Your task to perform on an android device: Go to Amazon Image 0: 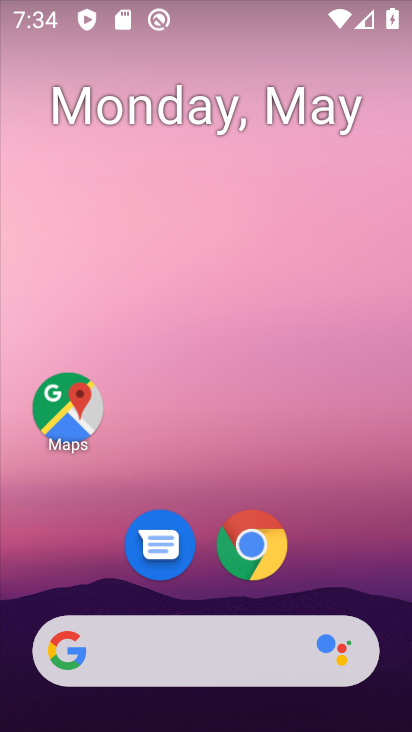
Step 0: click (254, 548)
Your task to perform on an android device: Go to Amazon Image 1: 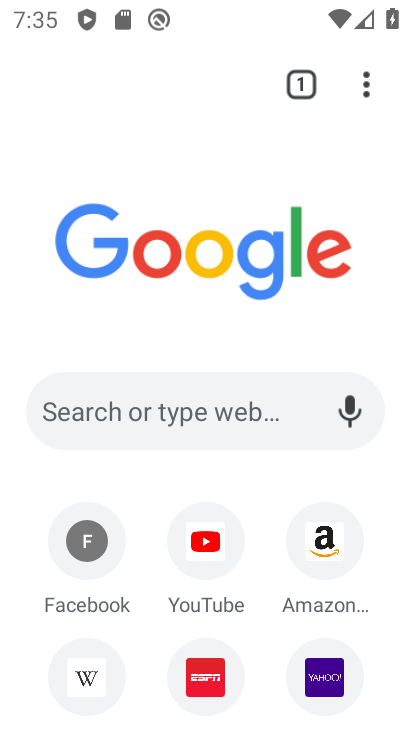
Step 1: click (311, 539)
Your task to perform on an android device: Go to Amazon Image 2: 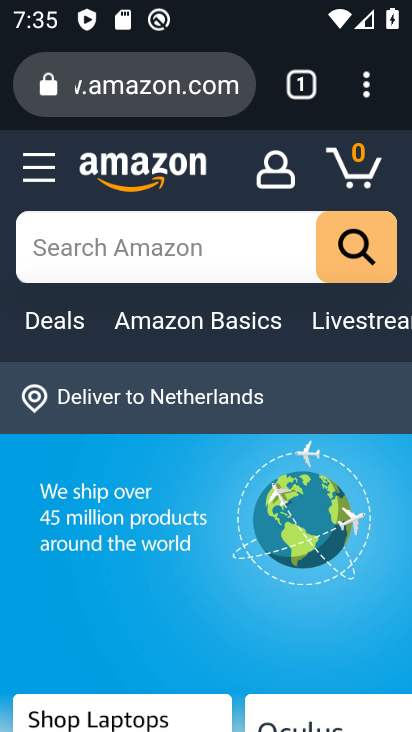
Step 2: task complete